Your task to perform on an android device: What is the news today? Image 0: 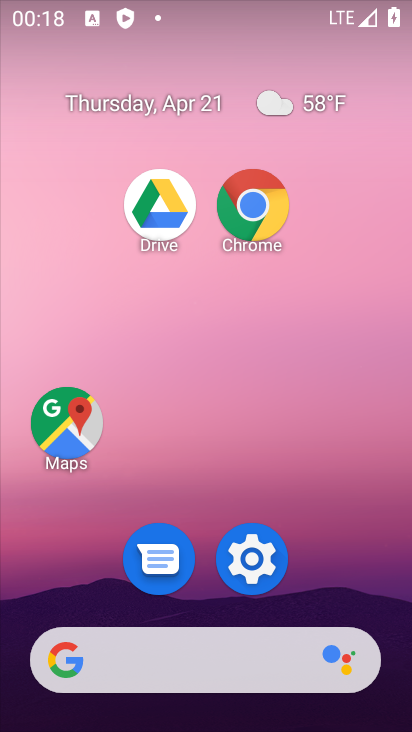
Step 0: drag from (318, 594) to (280, 132)
Your task to perform on an android device: What is the news today? Image 1: 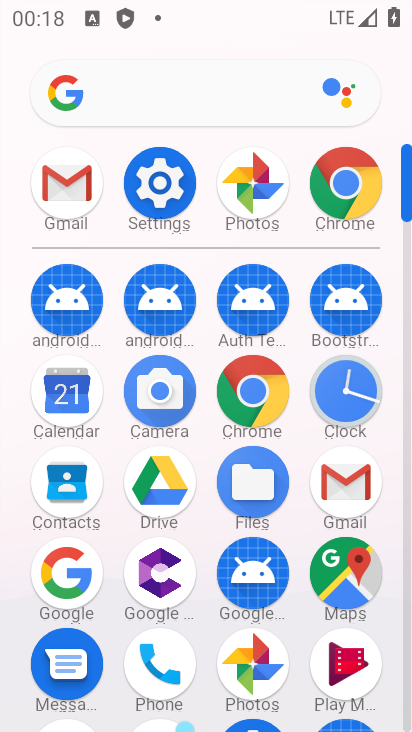
Step 1: click (243, 415)
Your task to perform on an android device: What is the news today? Image 2: 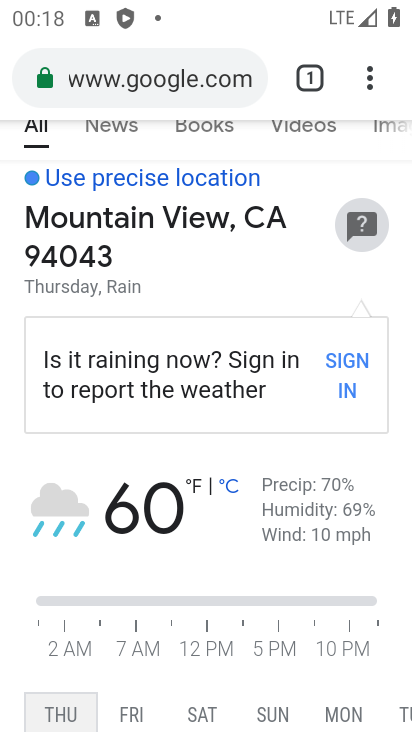
Step 2: click (187, 70)
Your task to perform on an android device: What is the news today? Image 3: 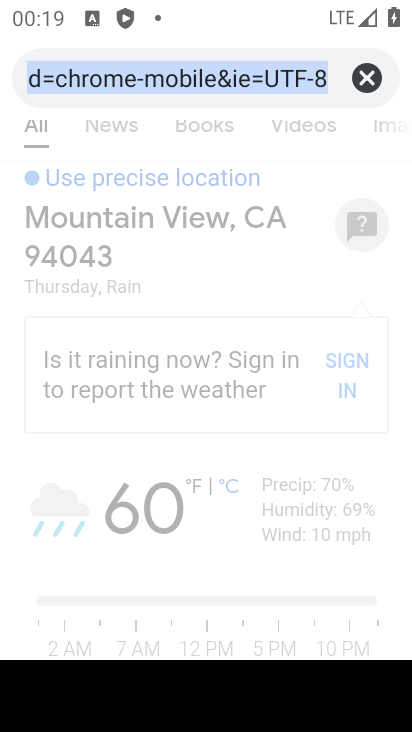
Step 3: click (366, 85)
Your task to perform on an android device: What is the news today? Image 4: 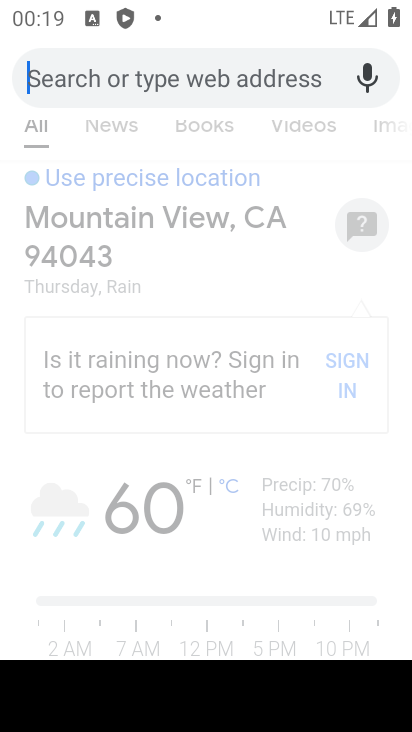
Step 4: type "news today"
Your task to perform on an android device: What is the news today? Image 5: 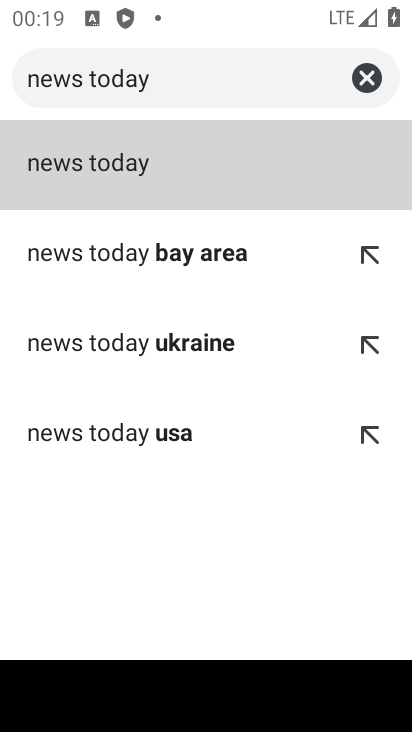
Step 5: click (174, 184)
Your task to perform on an android device: What is the news today? Image 6: 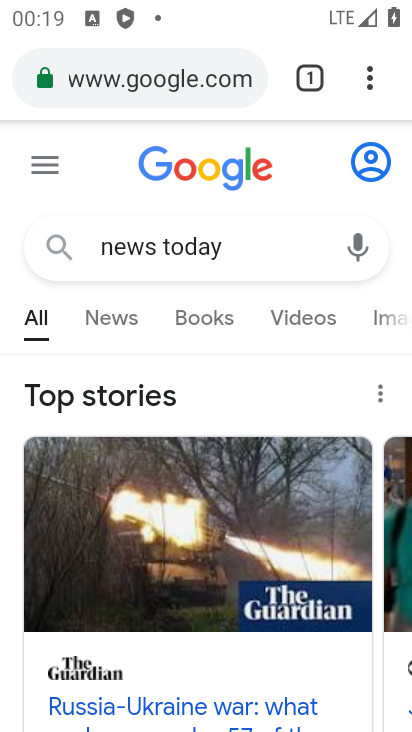
Step 6: task complete